Your task to perform on an android device: turn off data saver in the chrome app Image 0: 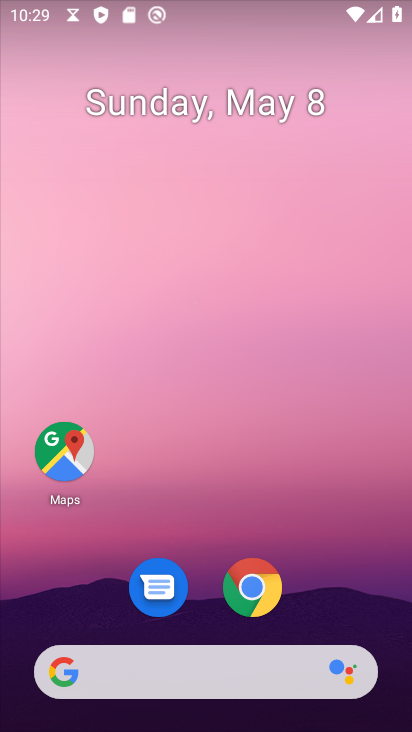
Step 0: click (267, 593)
Your task to perform on an android device: turn off data saver in the chrome app Image 1: 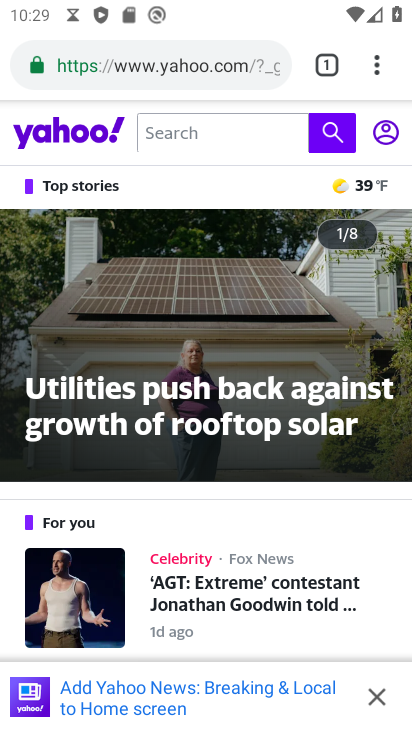
Step 1: drag from (375, 63) to (164, 633)
Your task to perform on an android device: turn off data saver in the chrome app Image 2: 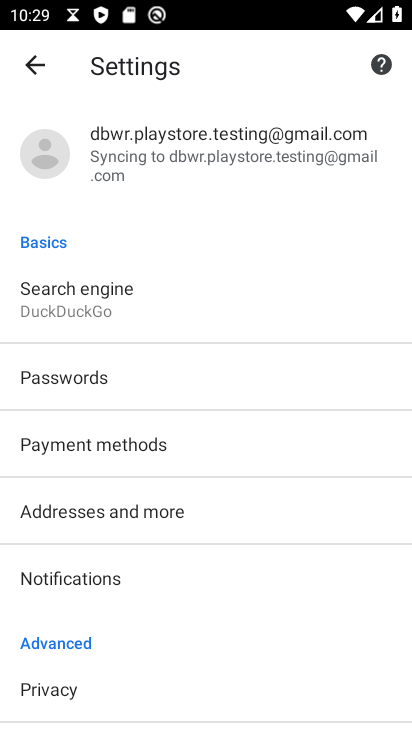
Step 2: drag from (155, 670) to (137, 182)
Your task to perform on an android device: turn off data saver in the chrome app Image 3: 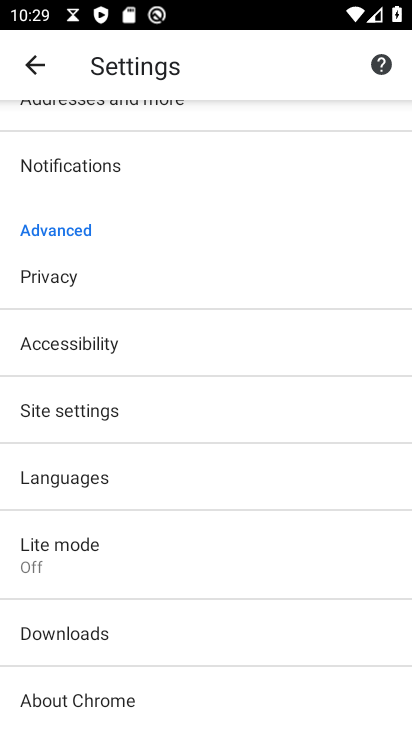
Step 3: click (58, 557)
Your task to perform on an android device: turn off data saver in the chrome app Image 4: 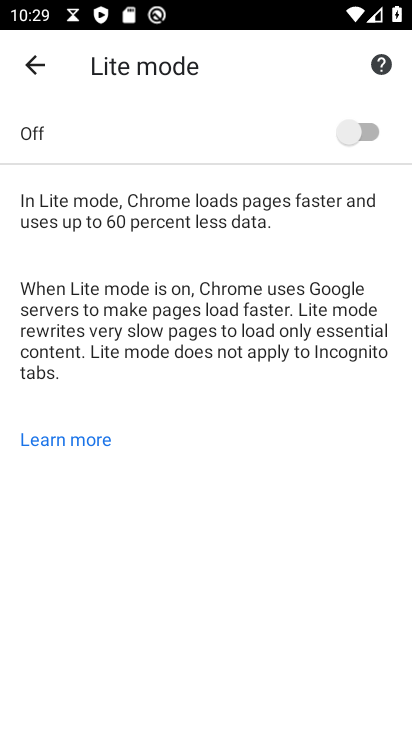
Step 4: task complete